Your task to perform on an android device: manage bookmarks in the chrome app Image 0: 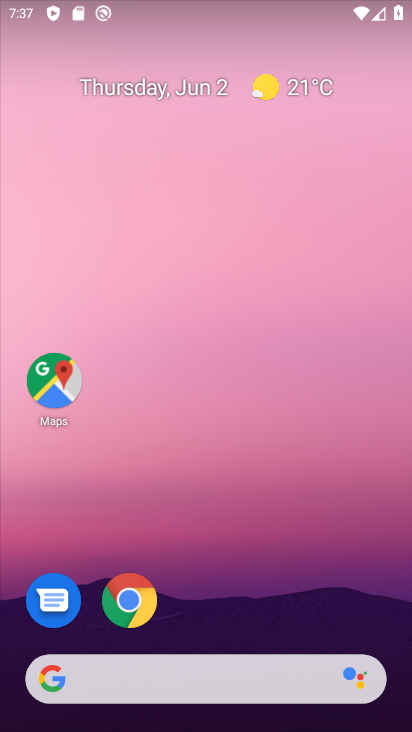
Step 0: drag from (193, 647) to (349, 51)
Your task to perform on an android device: manage bookmarks in the chrome app Image 1: 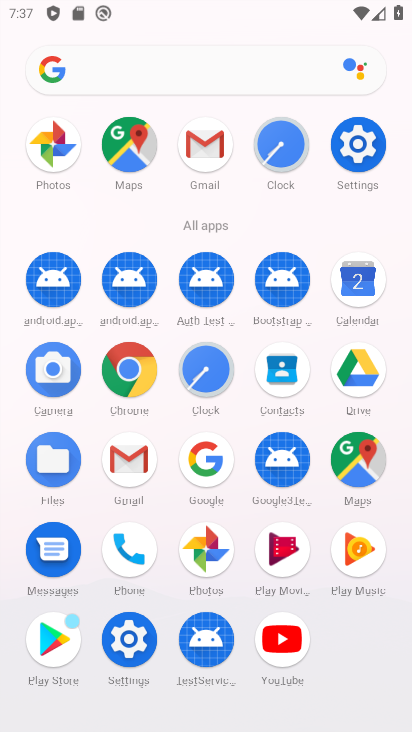
Step 1: click (127, 365)
Your task to perform on an android device: manage bookmarks in the chrome app Image 2: 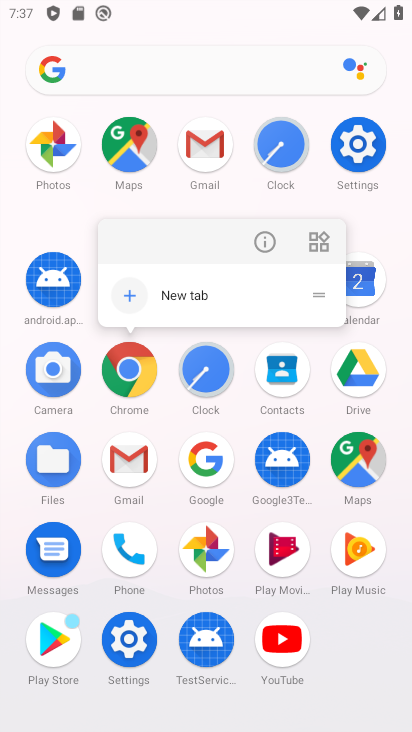
Step 2: click (265, 249)
Your task to perform on an android device: manage bookmarks in the chrome app Image 3: 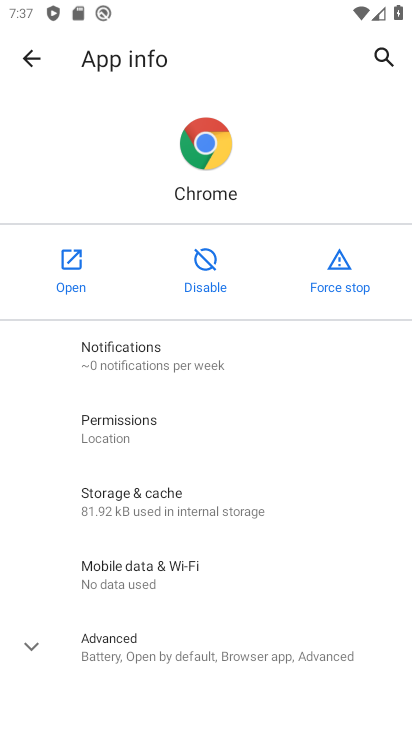
Step 3: click (75, 277)
Your task to perform on an android device: manage bookmarks in the chrome app Image 4: 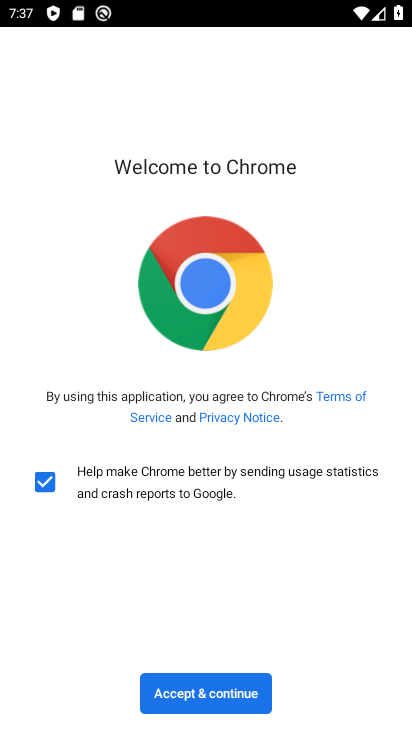
Step 4: click (212, 705)
Your task to perform on an android device: manage bookmarks in the chrome app Image 5: 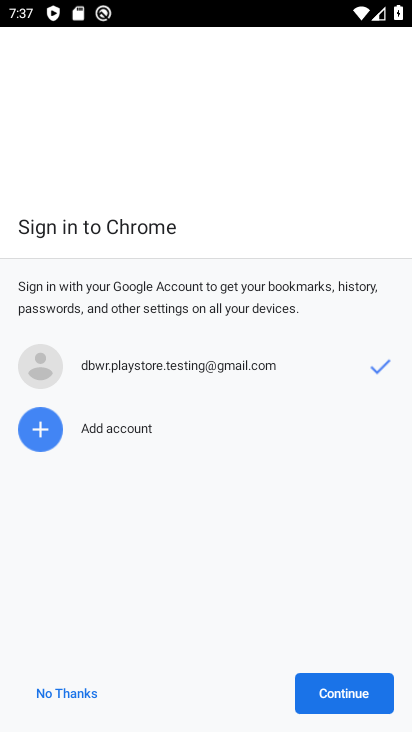
Step 5: click (316, 710)
Your task to perform on an android device: manage bookmarks in the chrome app Image 6: 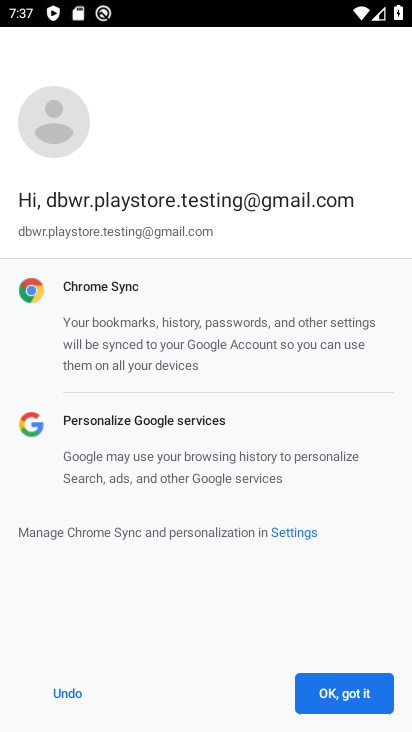
Step 6: click (313, 708)
Your task to perform on an android device: manage bookmarks in the chrome app Image 7: 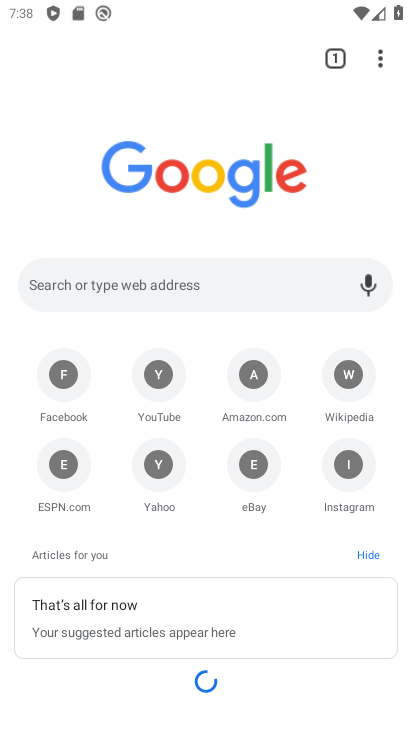
Step 7: drag from (276, 632) to (311, 275)
Your task to perform on an android device: manage bookmarks in the chrome app Image 8: 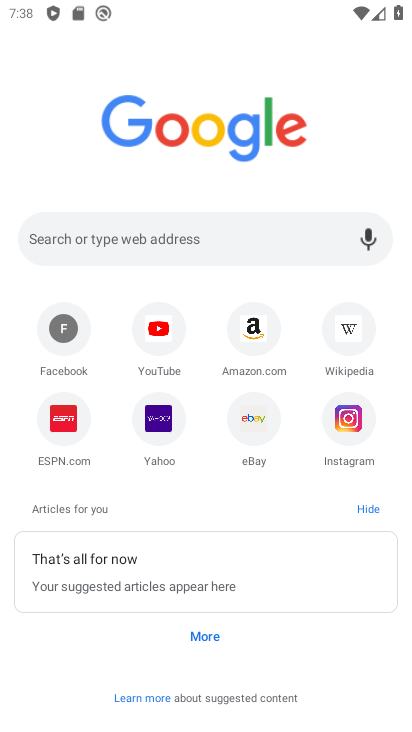
Step 8: drag from (356, 138) to (355, 468)
Your task to perform on an android device: manage bookmarks in the chrome app Image 9: 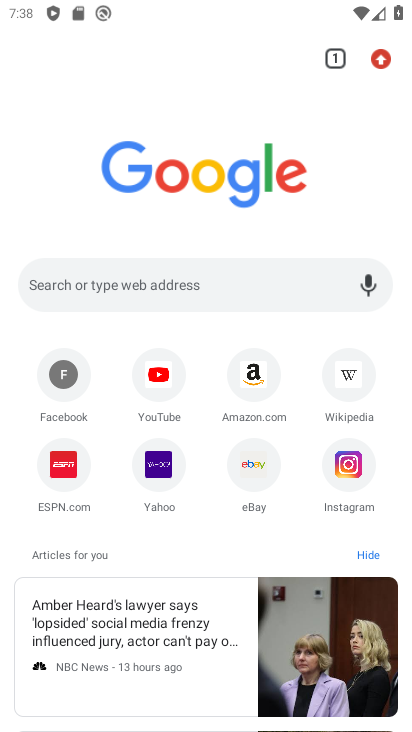
Step 9: drag from (299, 436) to (269, 94)
Your task to perform on an android device: manage bookmarks in the chrome app Image 10: 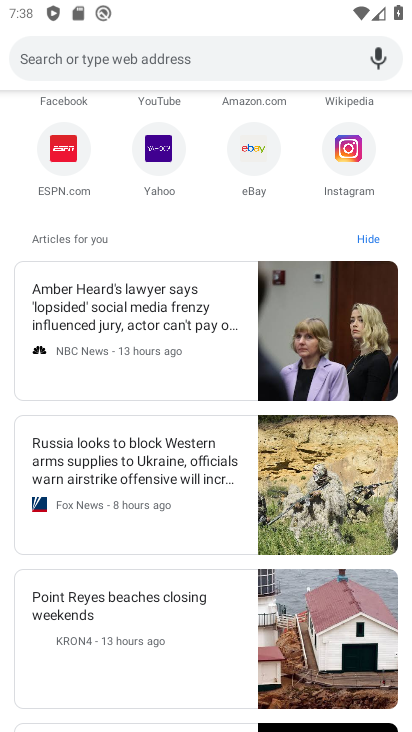
Step 10: drag from (196, 383) to (344, 729)
Your task to perform on an android device: manage bookmarks in the chrome app Image 11: 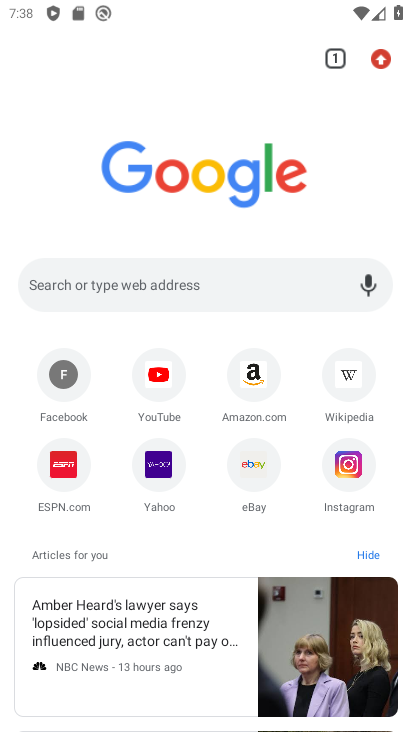
Step 11: drag from (375, 62) to (254, 291)
Your task to perform on an android device: manage bookmarks in the chrome app Image 12: 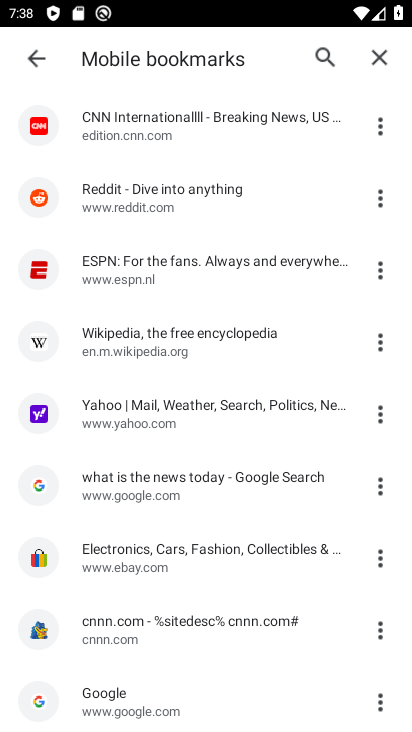
Step 12: click (386, 123)
Your task to perform on an android device: manage bookmarks in the chrome app Image 13: 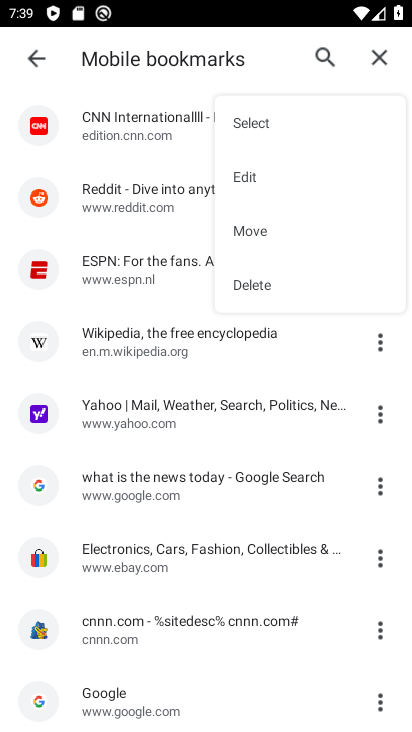
Step 13: task complete